Your task to perform on an android device: Open Android settings Image 0: 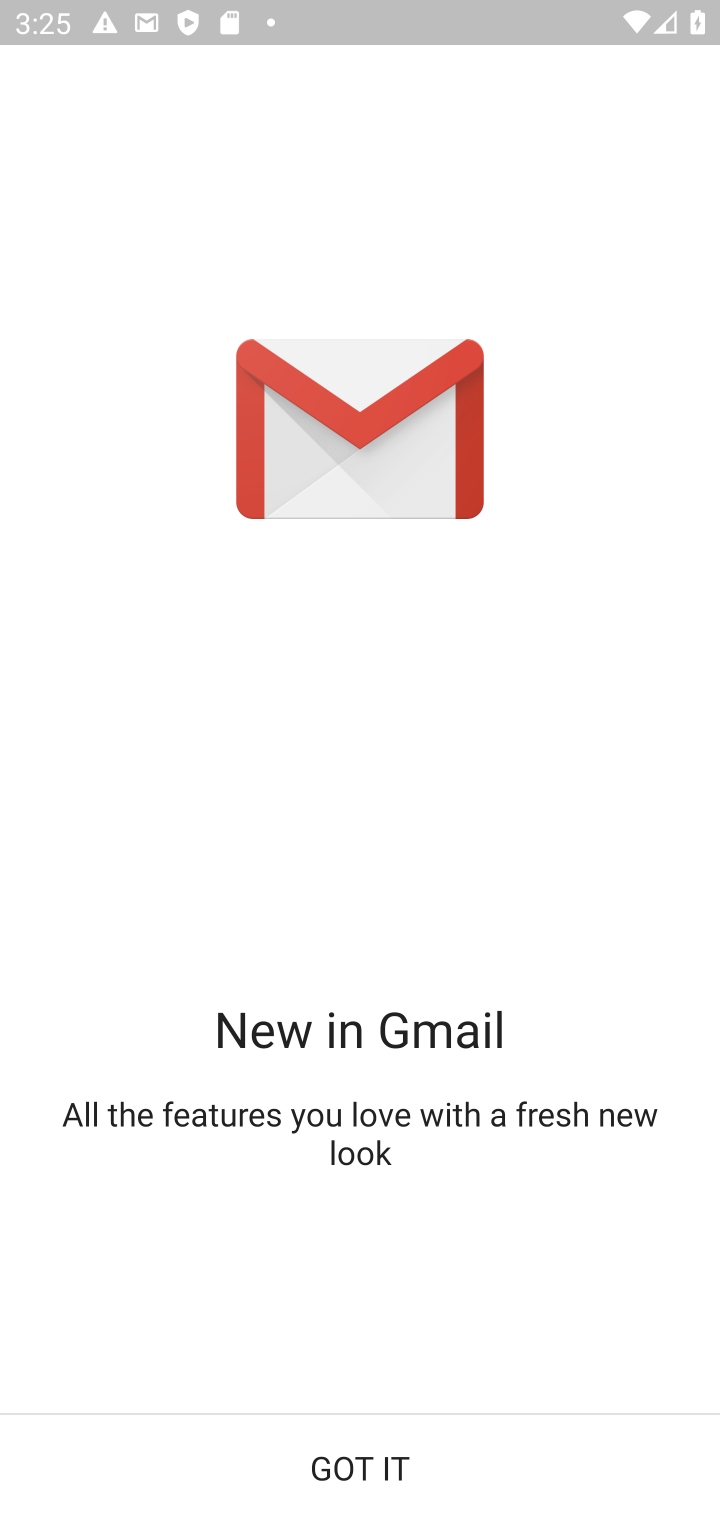
Step 0: press back button
Your task to perform on an android device: Open Android settings Image 1: 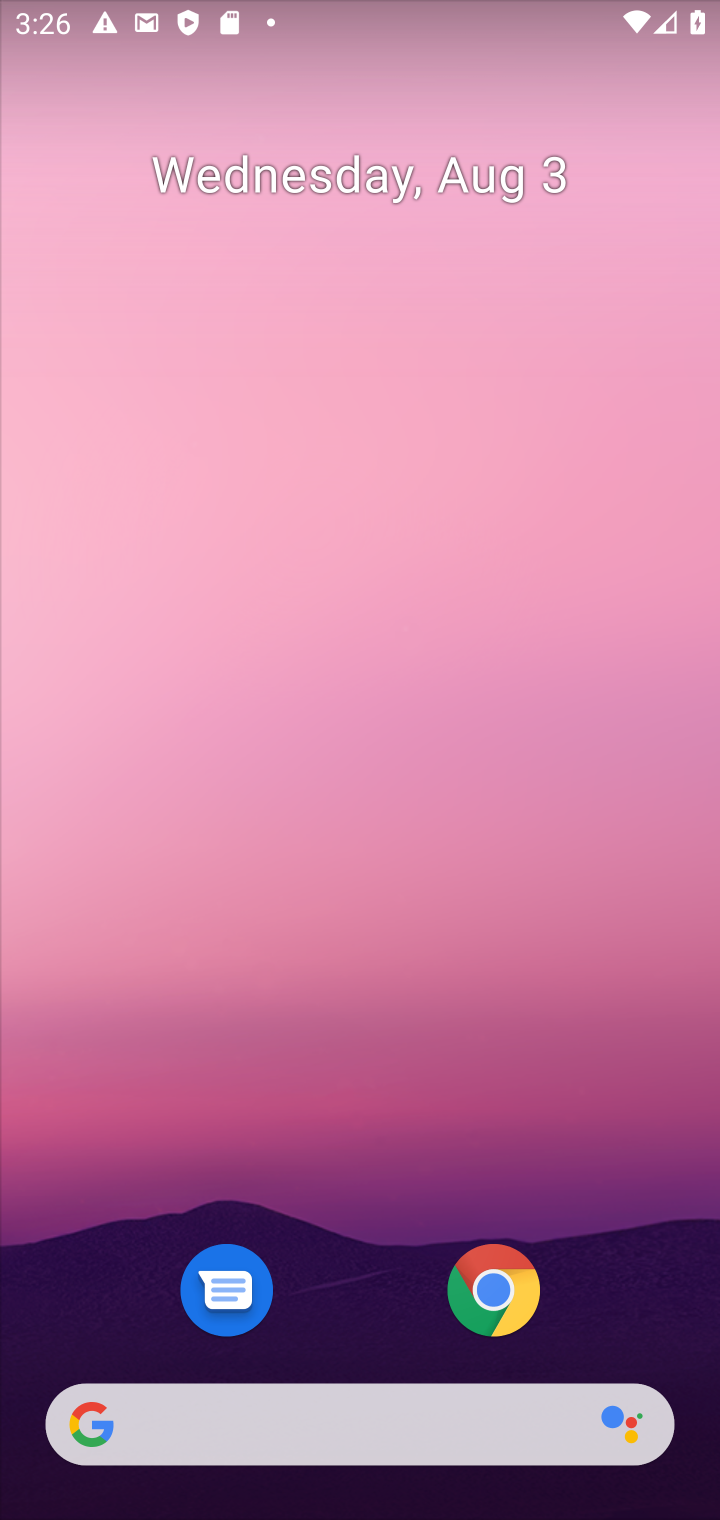
Step 1: drag from (303, 1079) to (399, 138)
Your task to perform on an android device: Open Android settings Image 2: 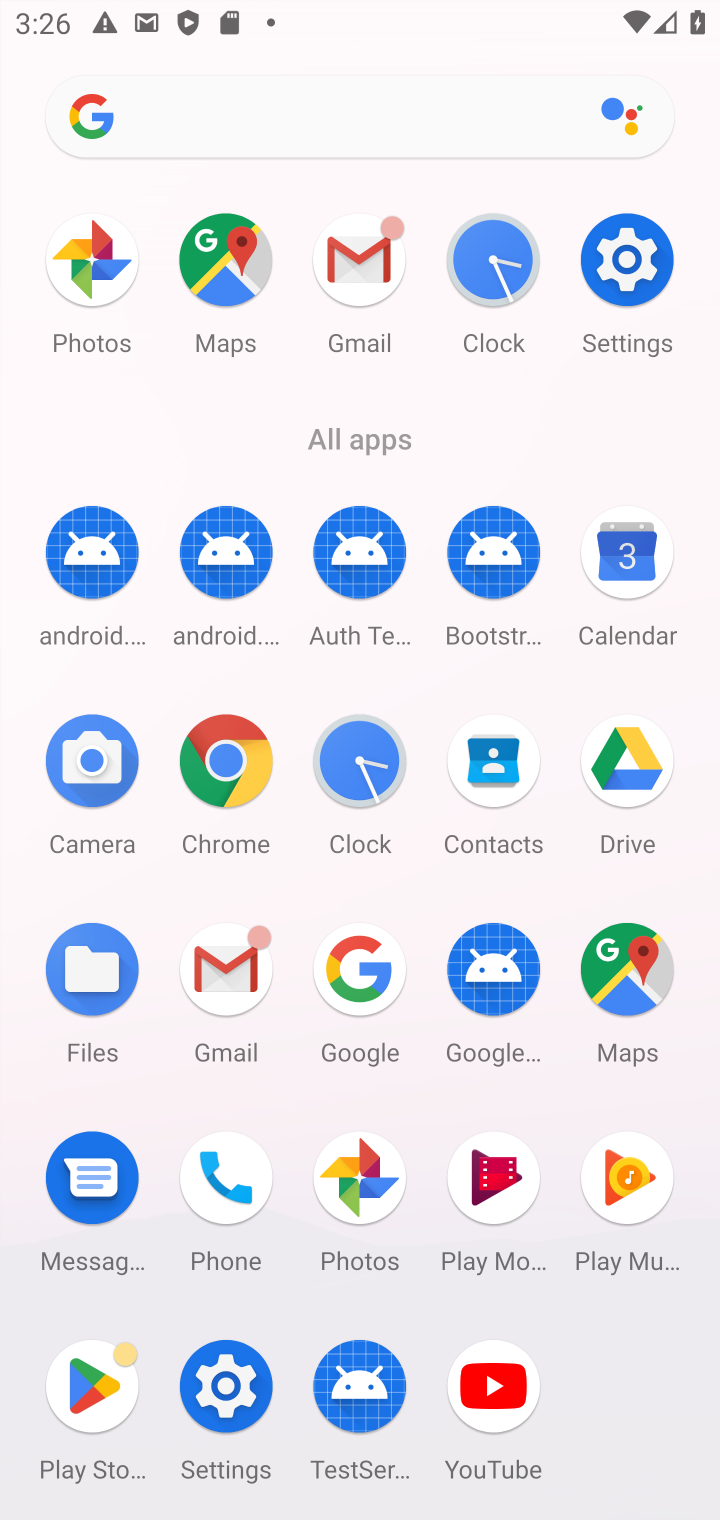
Step 2: click (626, 272)
Your task to perform on an android device: Open Android settings Image 3: 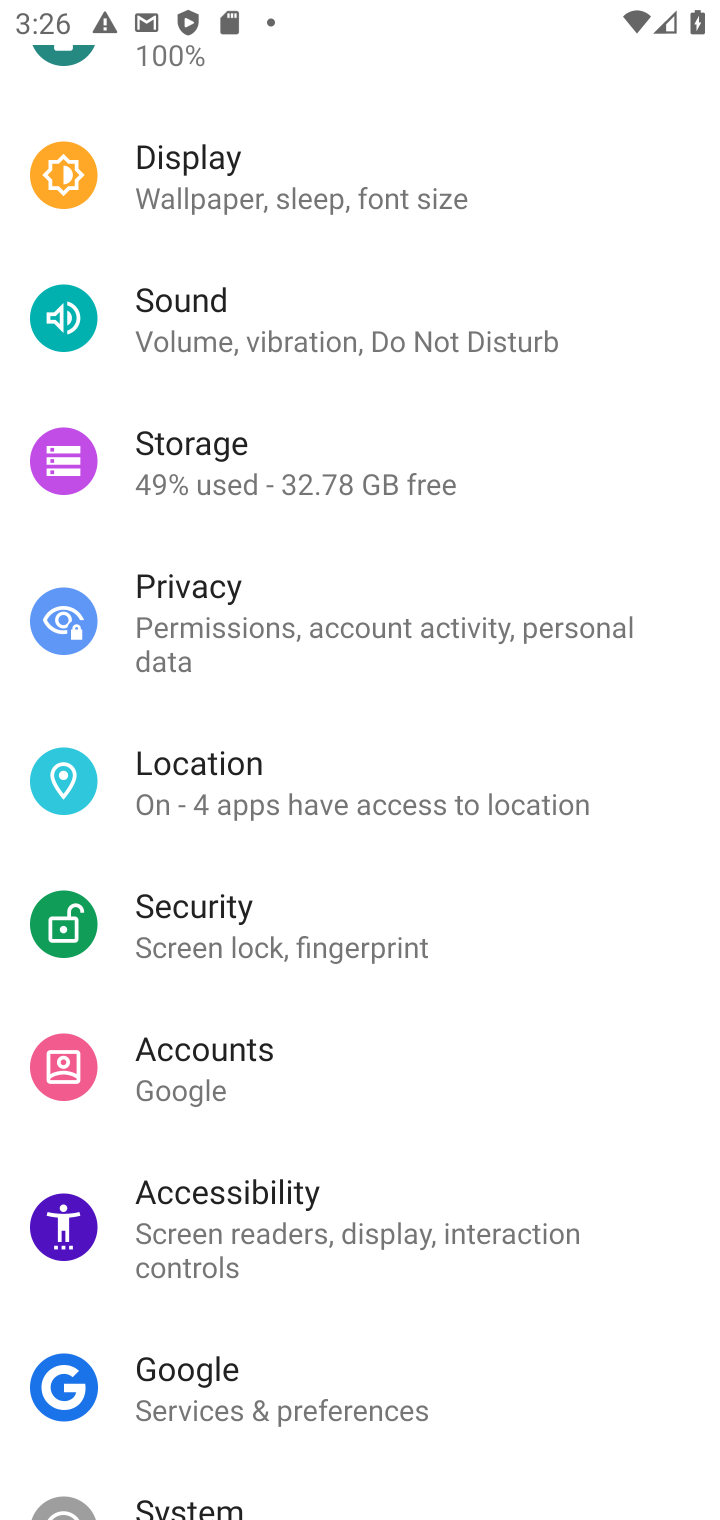
Step 3: drag from (246, 1401) to (505, 58)
Your task to perform on an android device: Open Android settings Image 4: 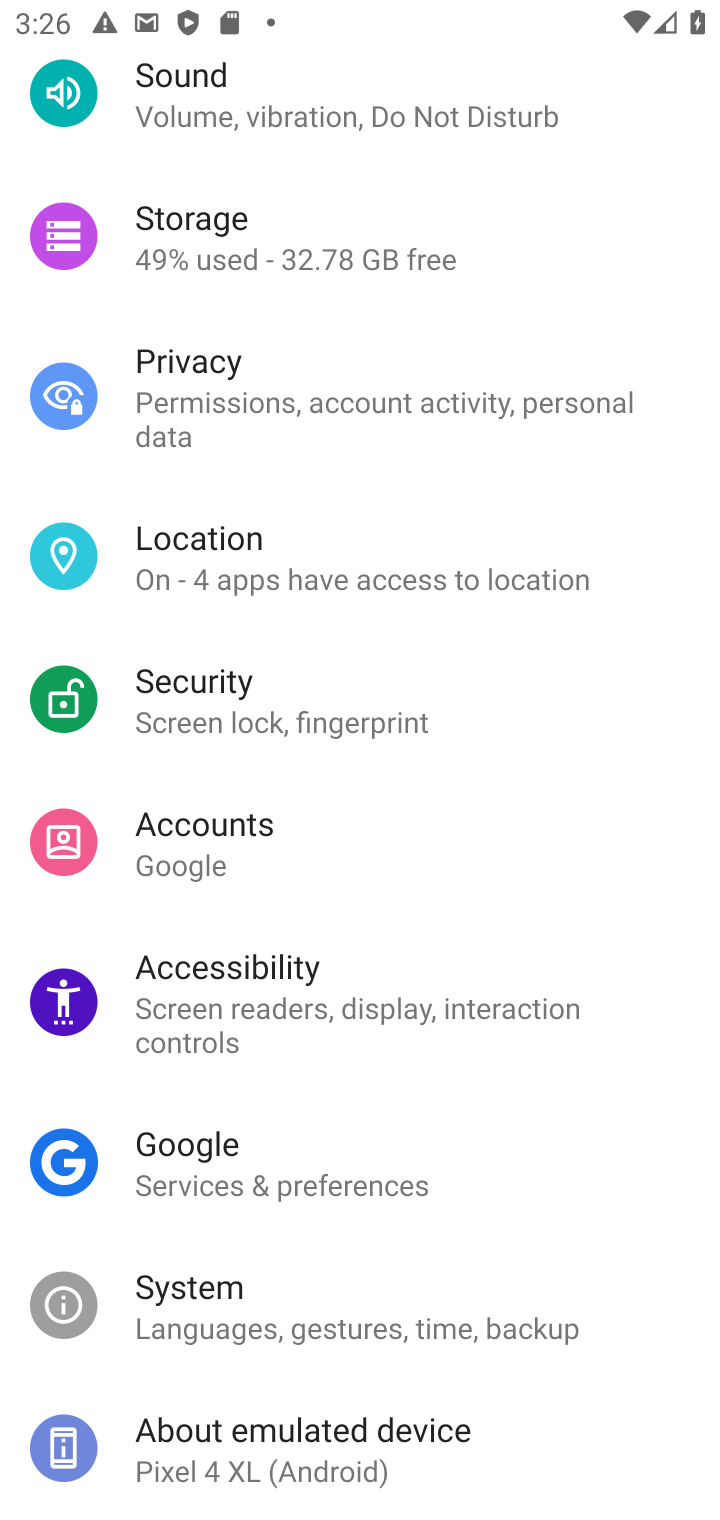
Step 4: click (275, 1424)
Your task to perform on an android device: Open Android settings Image 5: 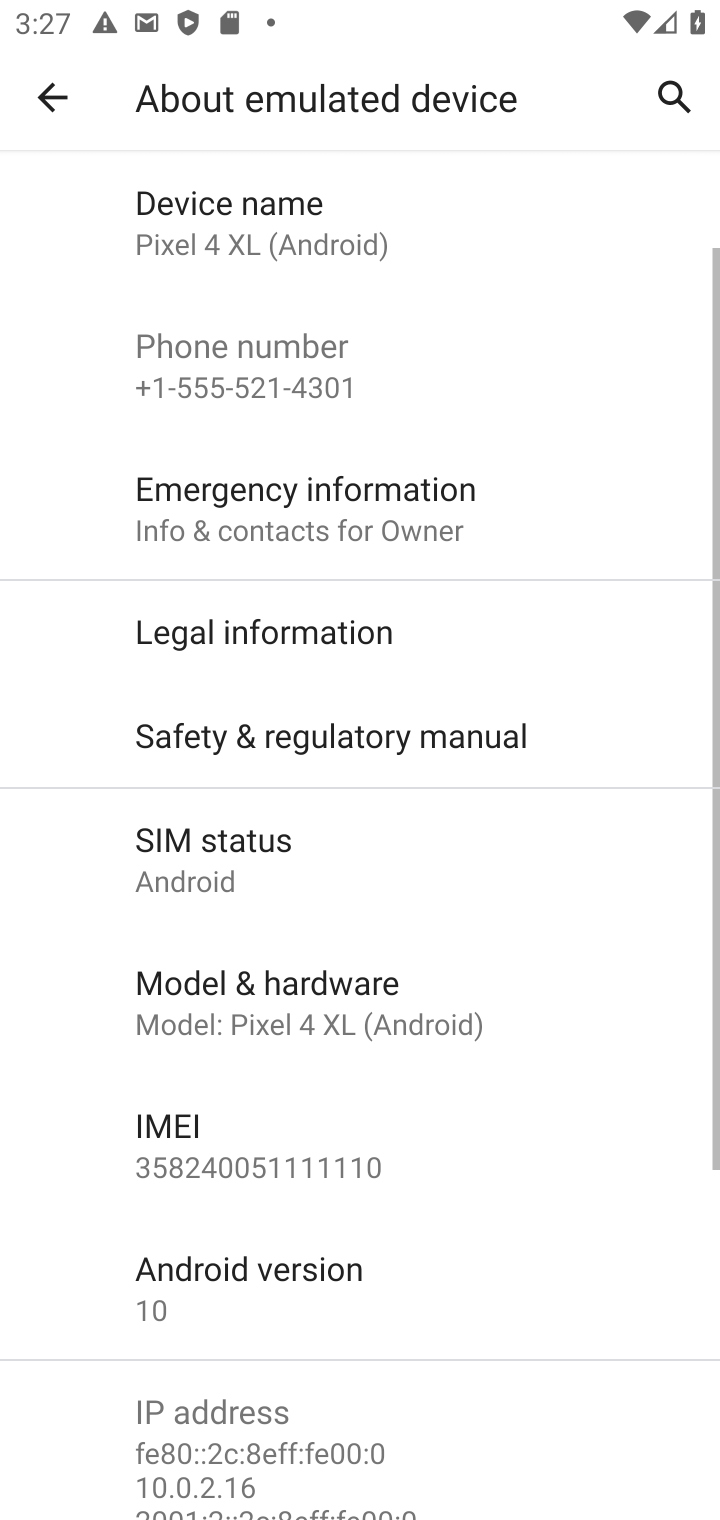
Step 5: task complete